Your task to perform on an android device: turn on improve location accuracy Image 0: 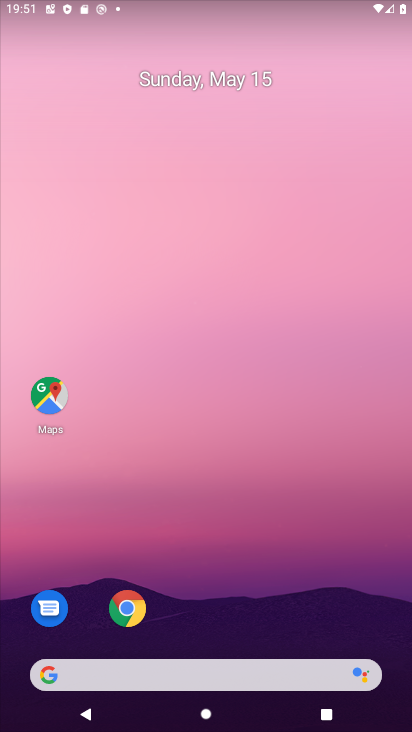
Step 0: drag from (216, 590) to (205, 7)
Your task to perform on an android device: turn on improve location accuracy Image 1: 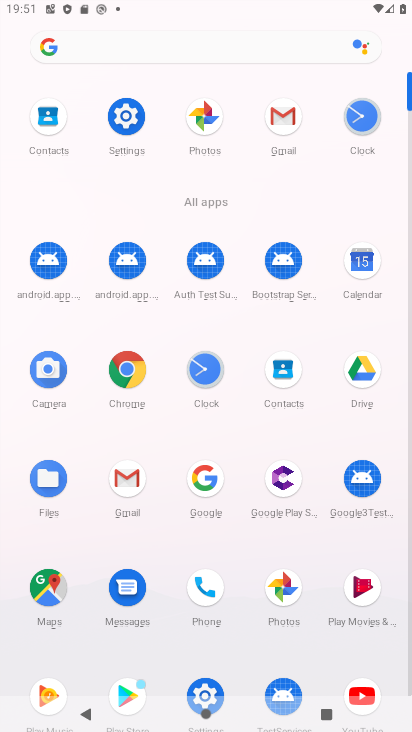
Step 1: click (125, 119)
Your task to perform on an android device: turn on improve location accuracy Image 2: 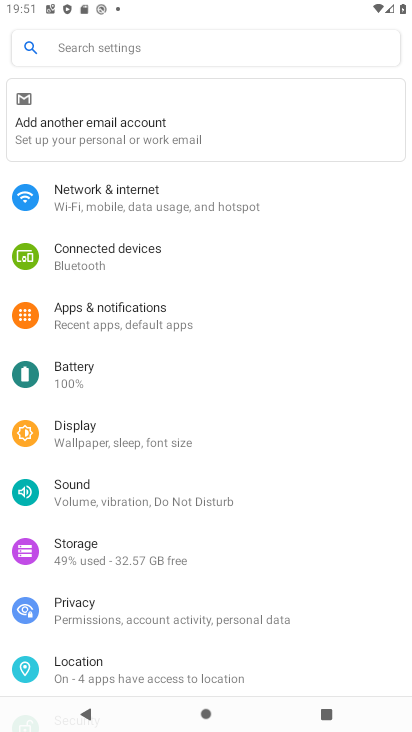
Step 2: click (124, 669)
Your task to perform on an android device: turn on improve location accuracy Image 3: 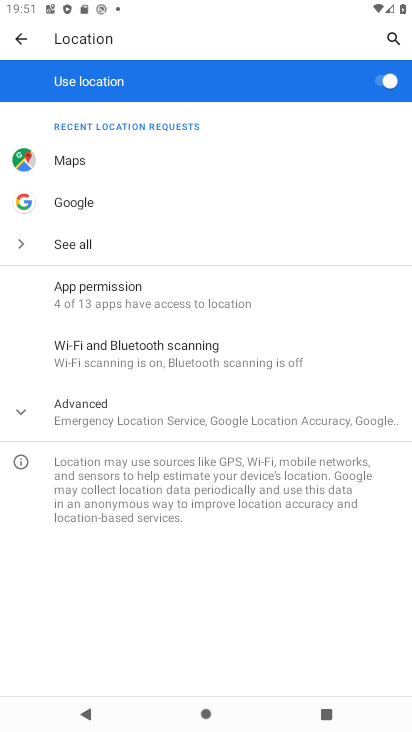
Step 3: click (157, 414)
Your task to perform on an android device: turn on improve location accuracy Image 4: 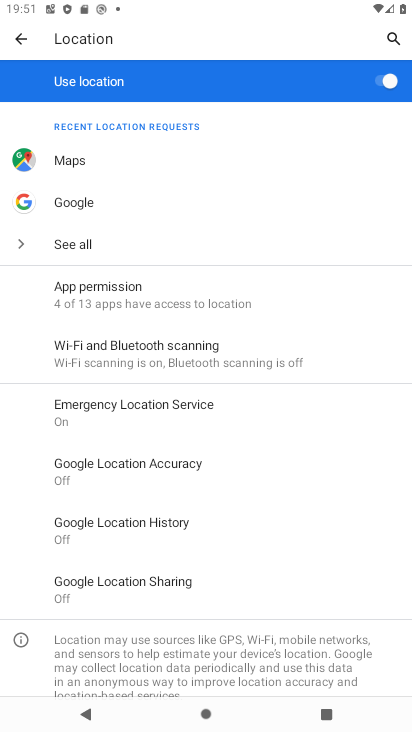
Step 4: click (212, 466)
Your task to perform on an android device: turn on improve location accuracy Image 5: 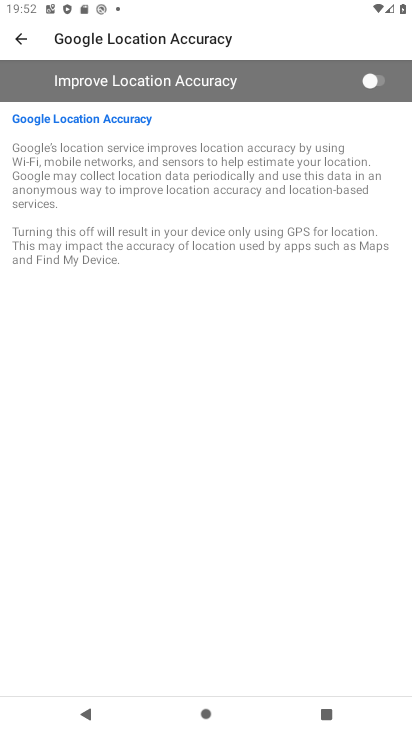
Step 5: click (381, 81)
Your task to perform on an android device: turn on improve location accuracy Image 6: 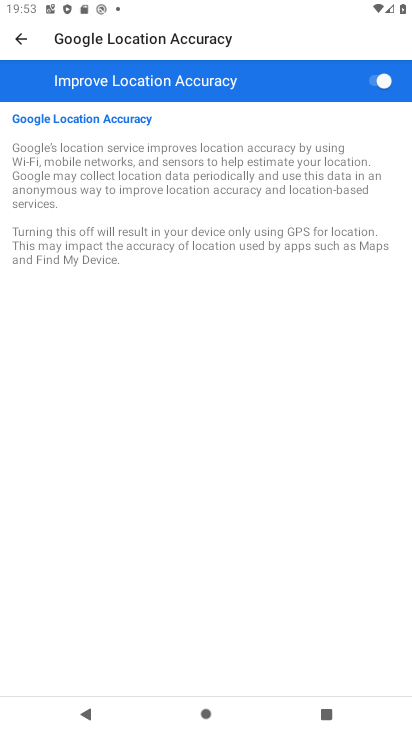
Step 6: task complete